Your task to perform on an android device: Go to location settings Image 0: 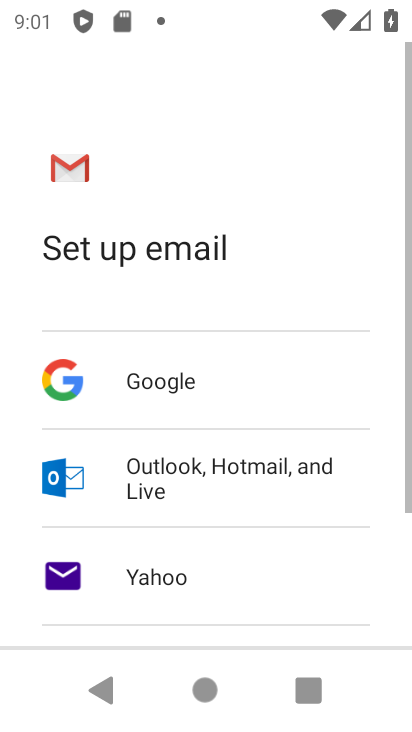
Step 0: press home button
Your task to perform on an android device: Go to location settings Image 1: 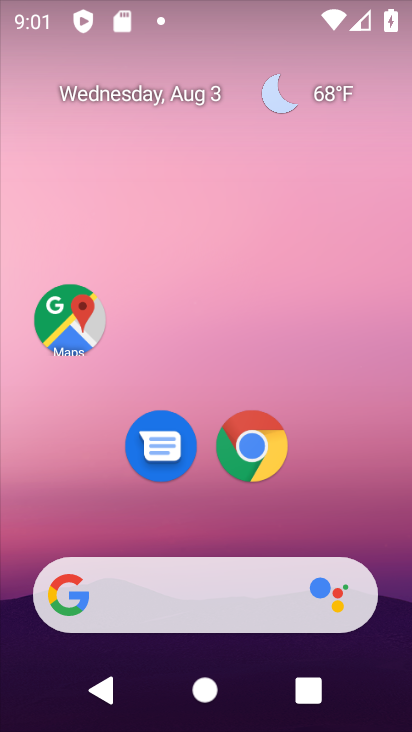
Step 1: drag from (337, 440) to (292, 201)
Your task to perform on an android device: Go to location settings Image 2: 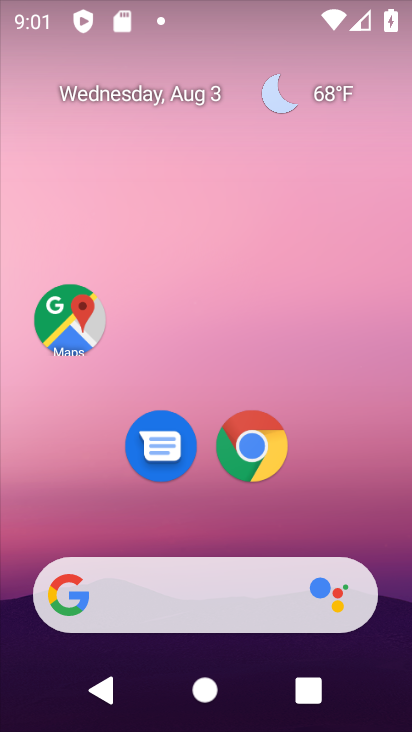
Step 2: drag from (370, 631) to (326, 166)
Your task to perform on an android device: Go to location settings Image 3: 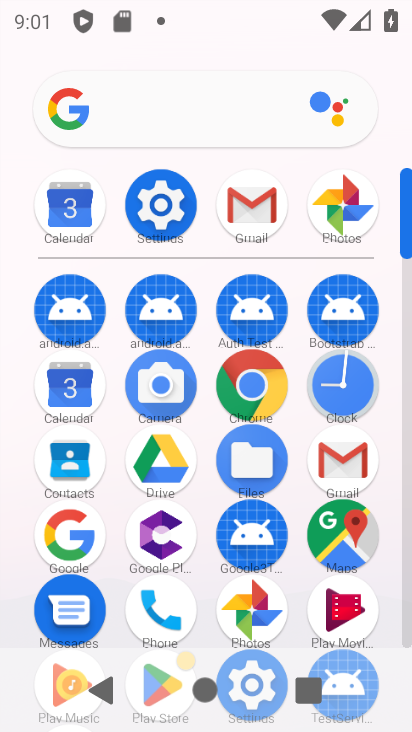
Step 3: click (167, 218)
Your task to perform on an android device: Go to location settings Image 4: 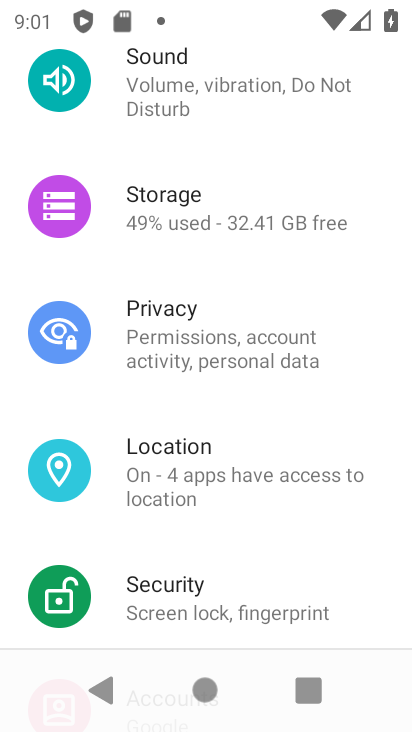
Step 4: click (194, 455)
Your task to perform on an android device: Go to location settings Image 5: 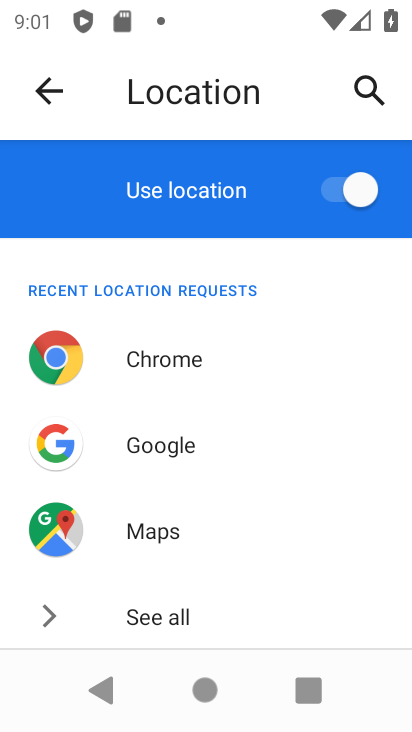
Step 5: drag from (272, 556) to (230, 211)
Your task to perform on an android device: Go to location settings Image 6: 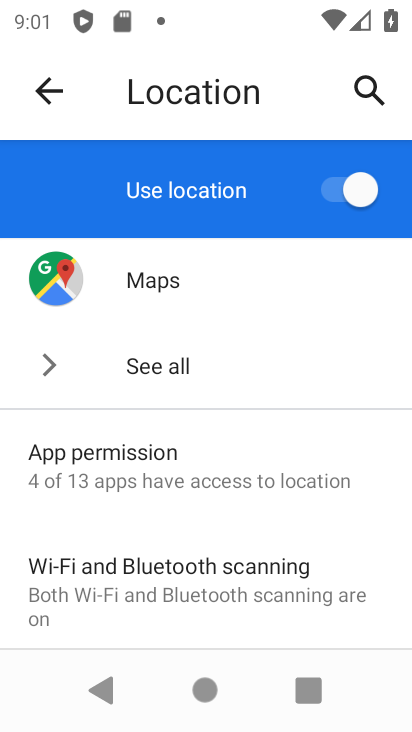
Step 6: drag from (191, 596) to (196, 249)
Your task to perform on an android device: Go to location settings Image 7: 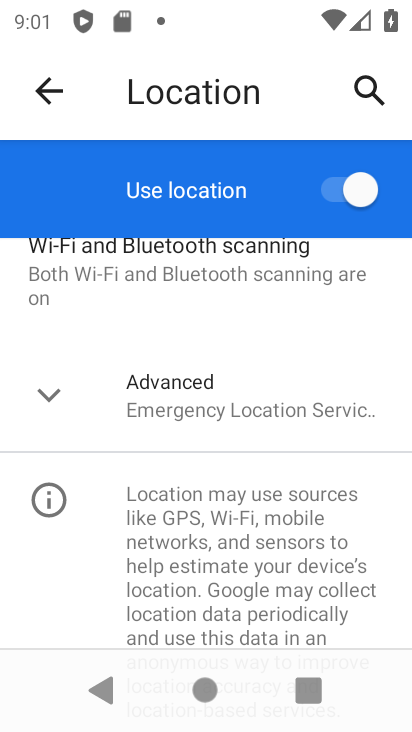
Step 7: click (55, 390)
Your task to perform on an android device: Go to location settings Image 8: 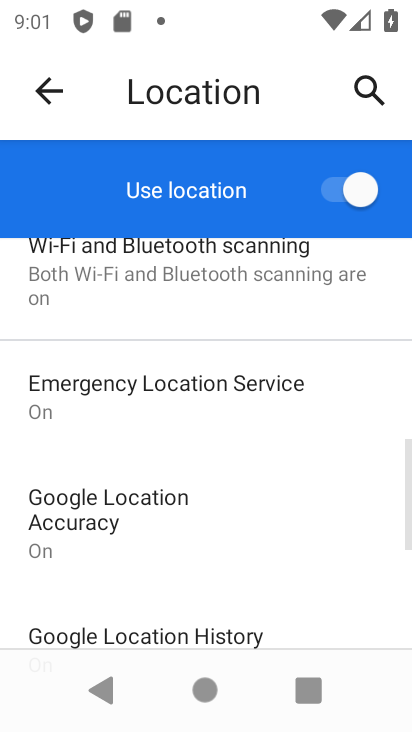
Step 8: task complete